Your task to perform on an android device: Open ESPN.com Image 0: 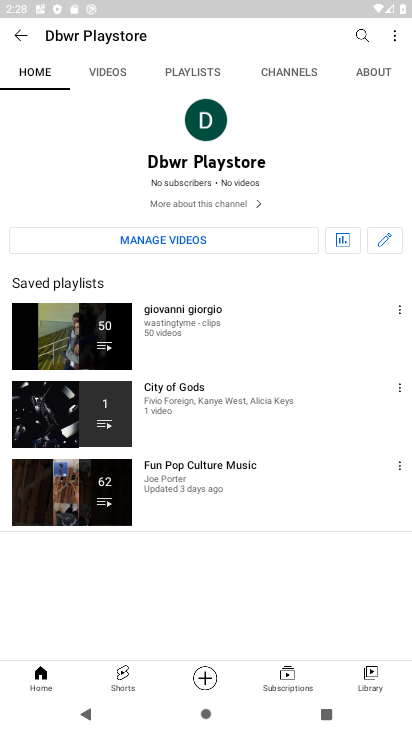
Step 0: press home button
Your task to perform on an android device: Open ESPN.com Image 1: 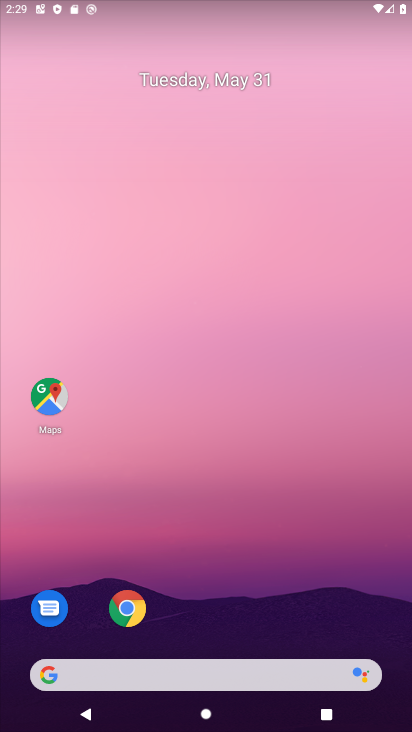
Step 1: click (146, 595)
Your task to perform on an android device: Open ESPN.com Image 2: 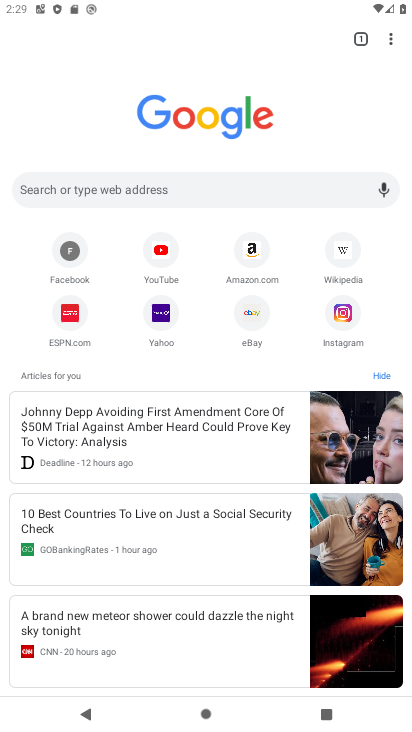
Step 2: click (64, 340)
Your task to perform on an android device: Open ESPN.com Image 3: 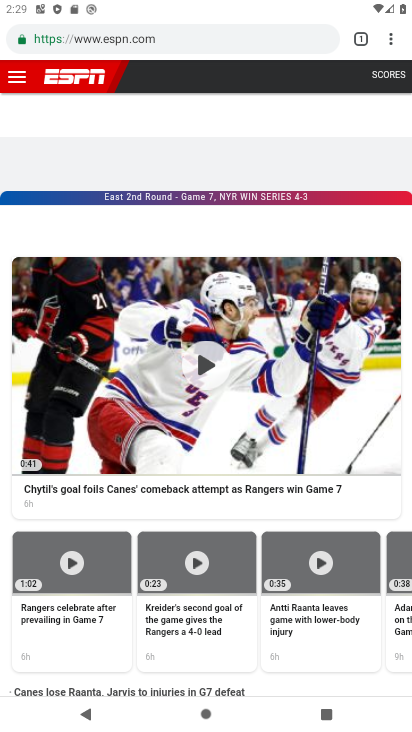
Step 3: task complete